Your task to perform on an android device: check google app version Image 0: 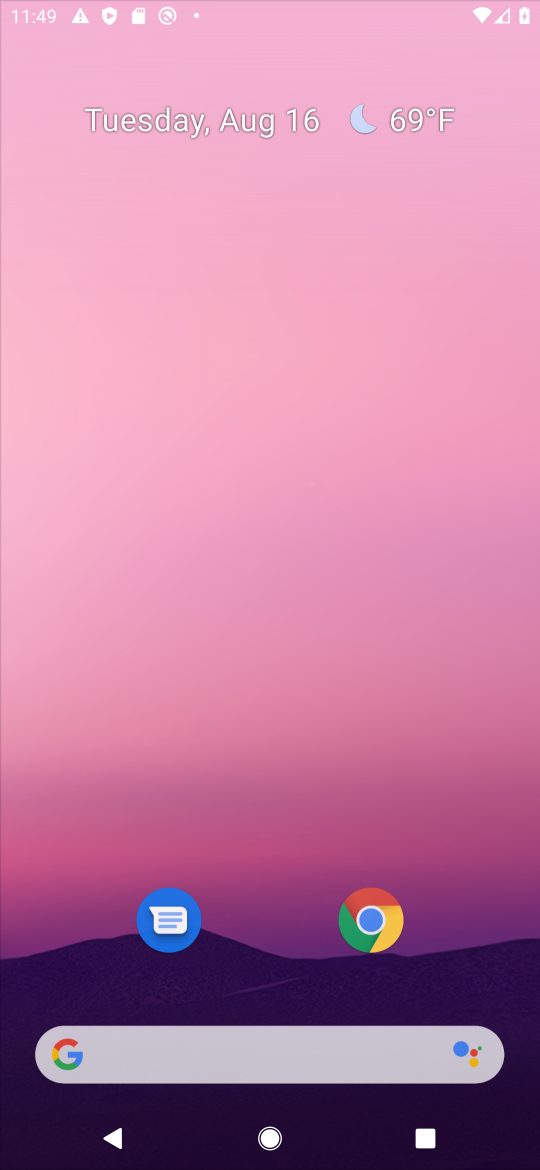
Step 0: drag from (297, 972) to (241, 43)
Your task to perform on an android device: check google app version Image 1: 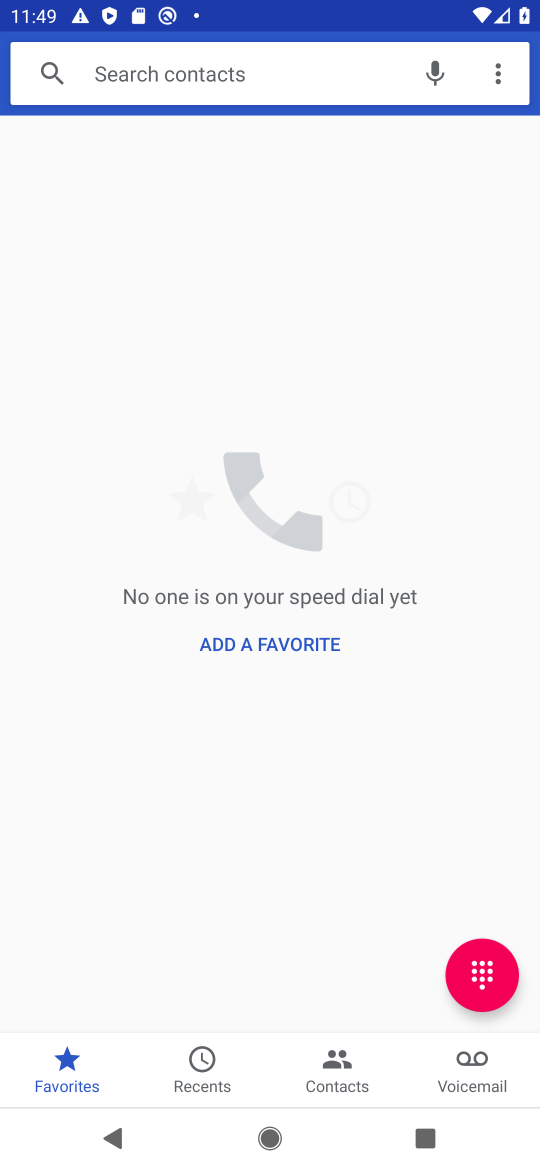
Step 1: press home button
Your task to perform on an android device: check google app version Image 2: 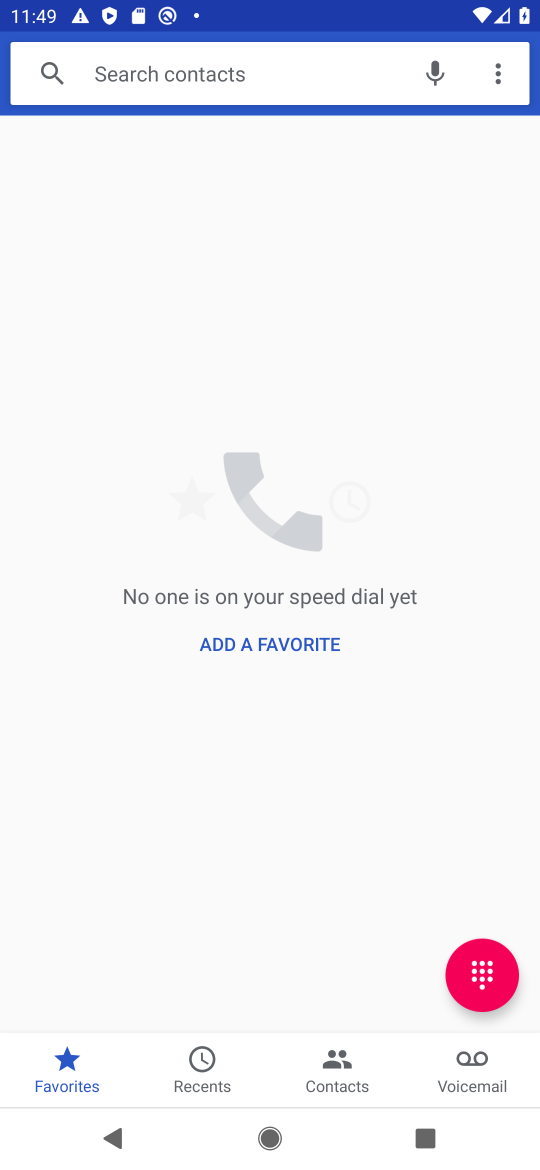
Step 2: drag from (241, 43) to (526, 984)
Your task to perform on an android device: check google app version Image 3: 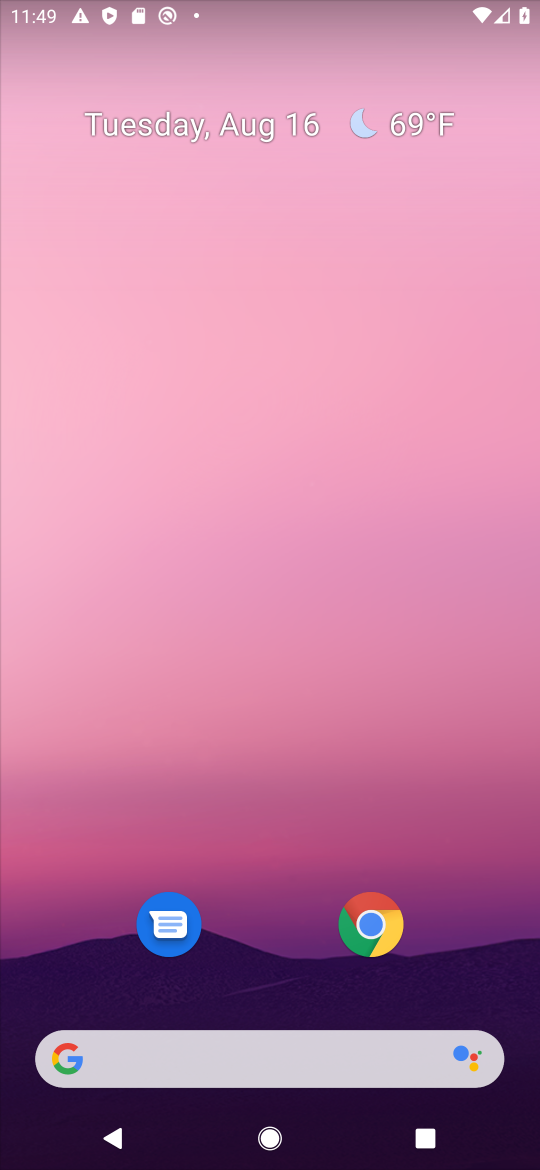
Step 3: click (97, 1057)
Your task to perform on an android device: check google app version Image 4: 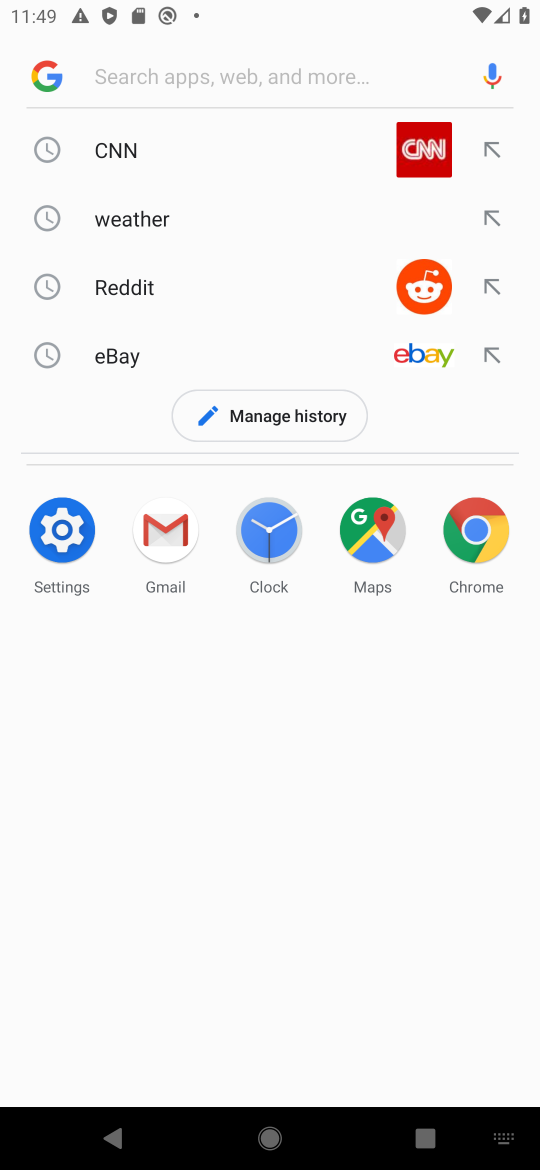
Step 4: click (62, 77)
Your task to perform on an android device: check google app version Image 5: 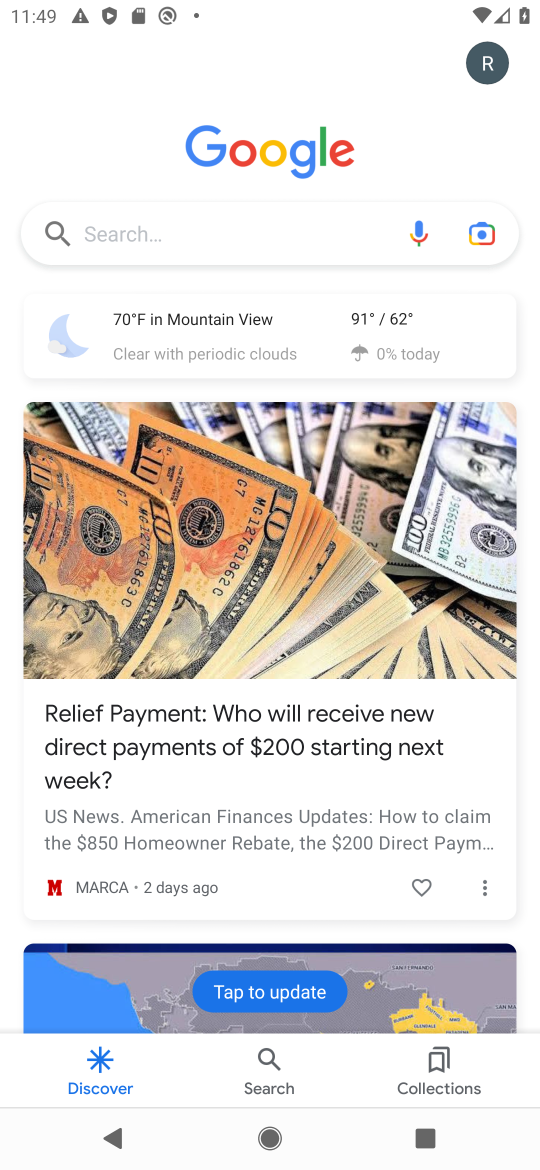
Step 5: click (485, 49)
Your task to perform on an android device: check google app version Image 6: 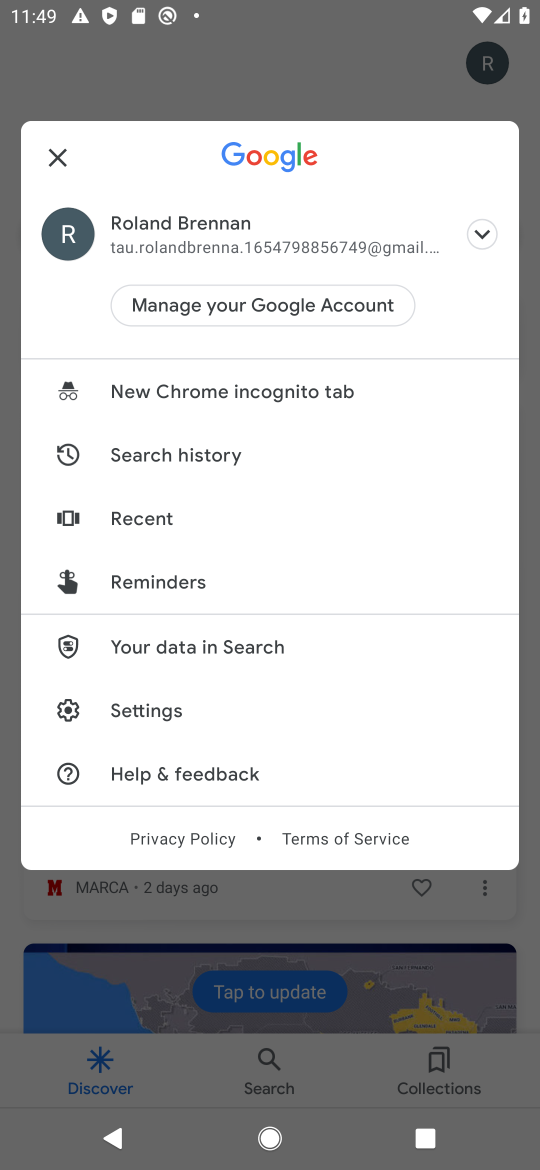
Step 6: click (151, 723)
Your task to perform on an android device: check google app version Image 7: 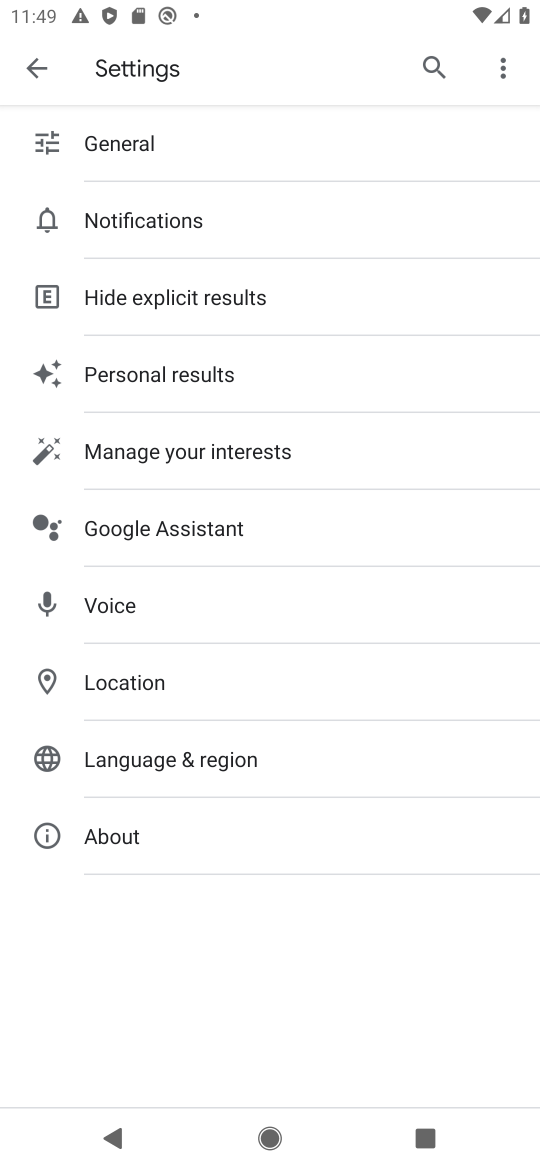
Step 7: click (191, 842)
Your task to perform on an android device: check google app version Image 8: 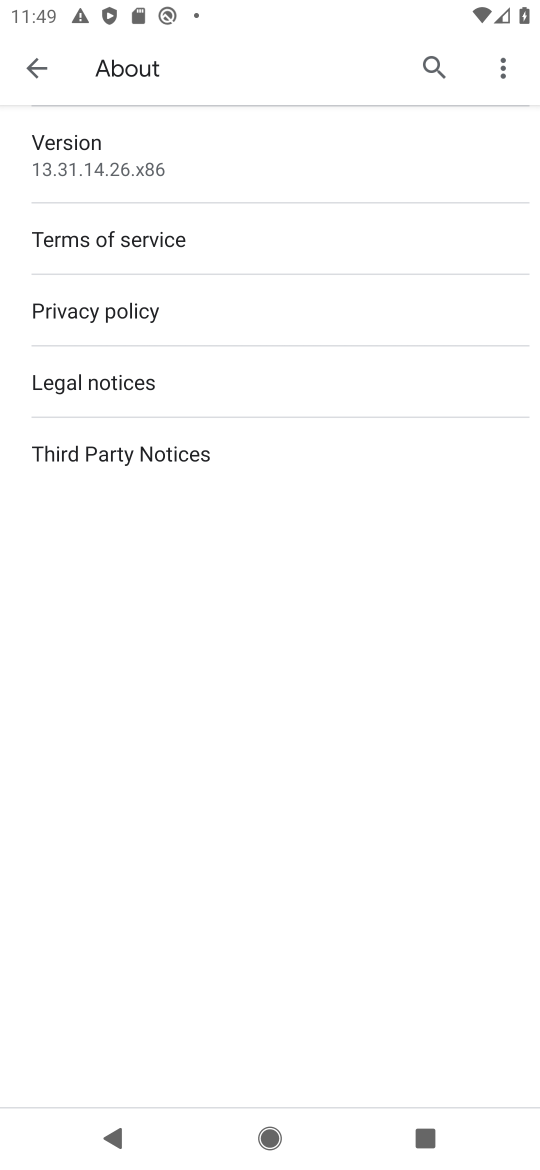
Step 8: click (166, 173)
Your task to perform on an android device: check google app version Image 9: 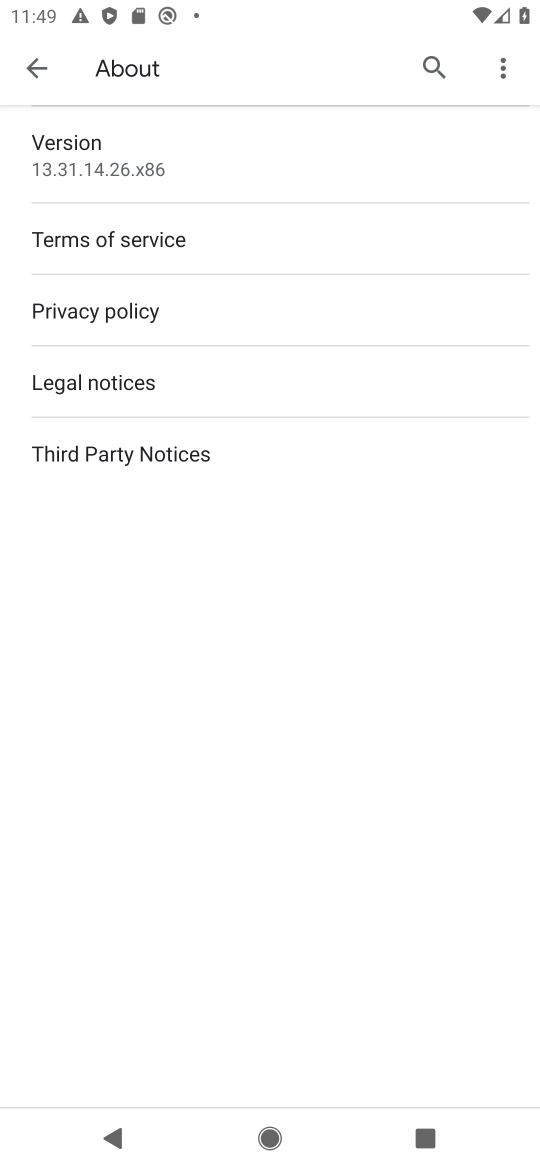
Step 9: task complete